Your task to perform on an android device: Open Reddit.com Image 0: 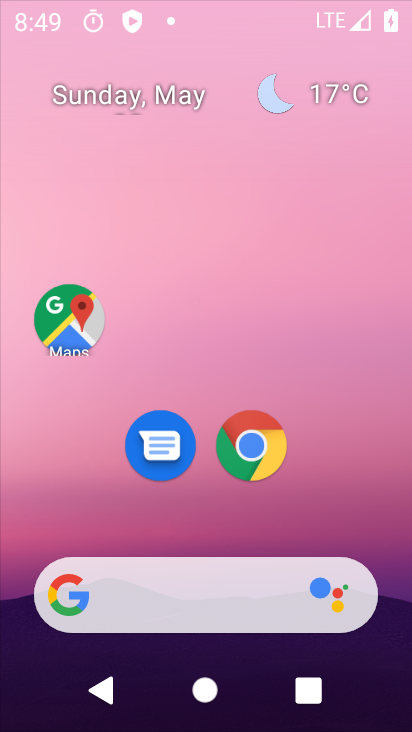
Step 0: drag from (408, 353) to (369, 251)
Your task to perform on an android device: Open Reddit.com Image 1: 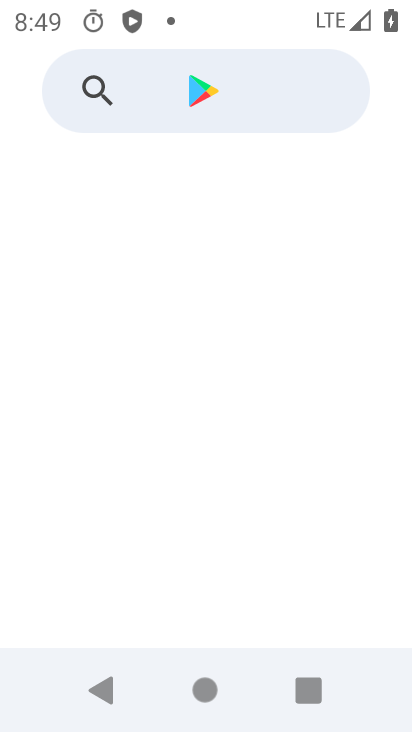
Step 1: drag from (183, 557) to (273, 240)
Your task to perform on an android device: Open Reddit.com Image 2: 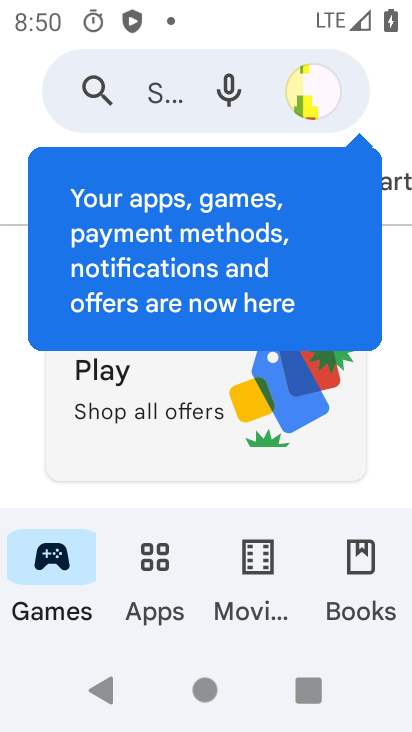
Step 2: press home button
Your task to perform on an android device: Open Reddit.com Image 3: 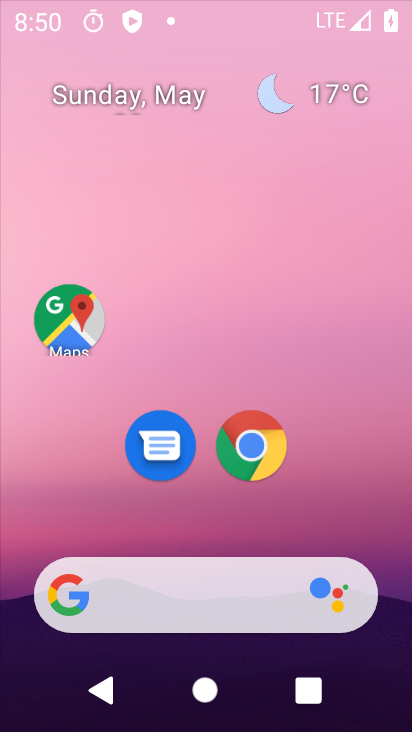
Step 3: drag from (189, 613) to (217, 92)
Your task to perform on an android device: Open Reddit.com Image 4: 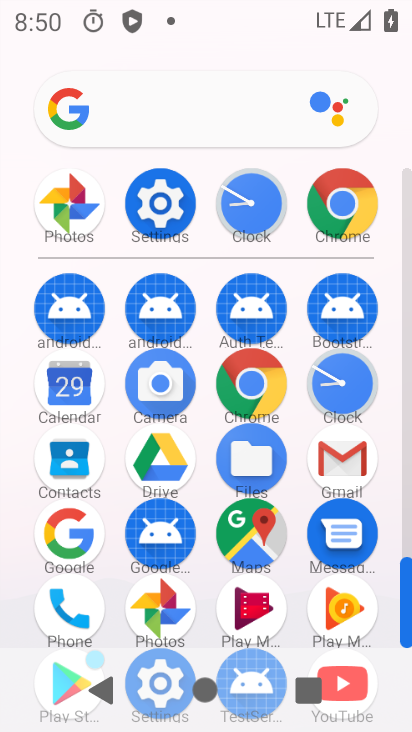
Step 4: click (174, 106)
Your task to perform on an android device: Open Reddit.com Image 5: 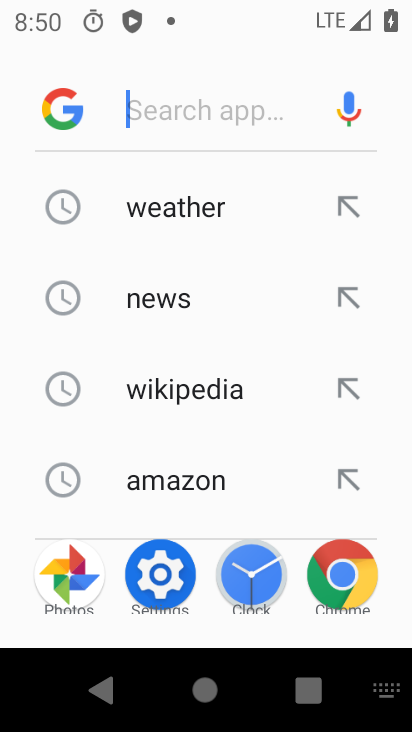
Step 5: click (153, 104)
Your task to perform on an android device: Open Reddit.com Image 6: 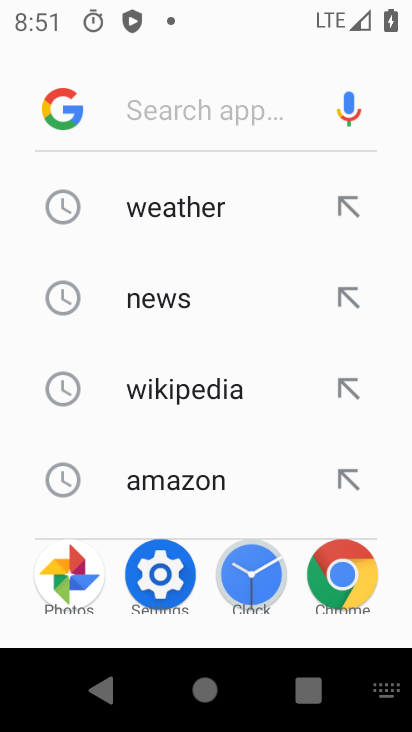
Step 6: type "Reddit.com"
Your task to perform on an android device: Open Reddit.com Image 7: 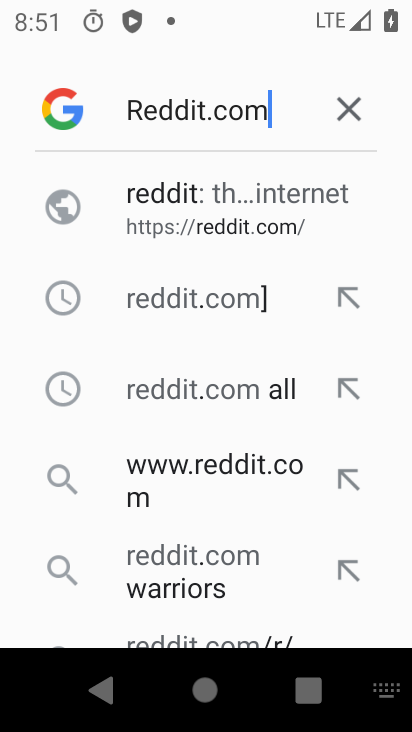
Step 7: click (173, 239)
Your task to perform on an android device: Open Reddit.com Image 8: 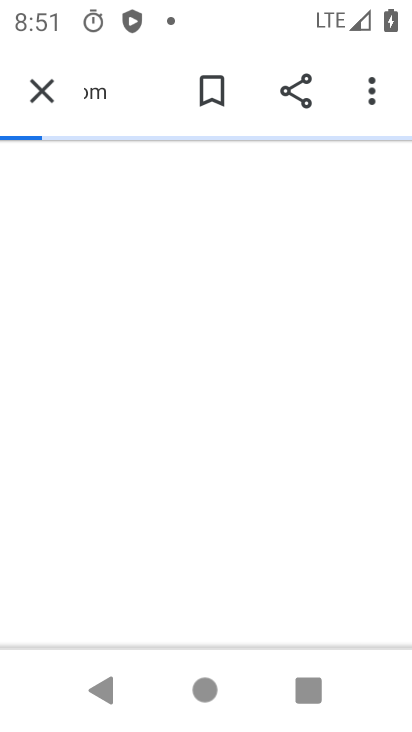
Step 8: task complete